Your task to perform on an android device: open app "Move to iOS" Image 0: 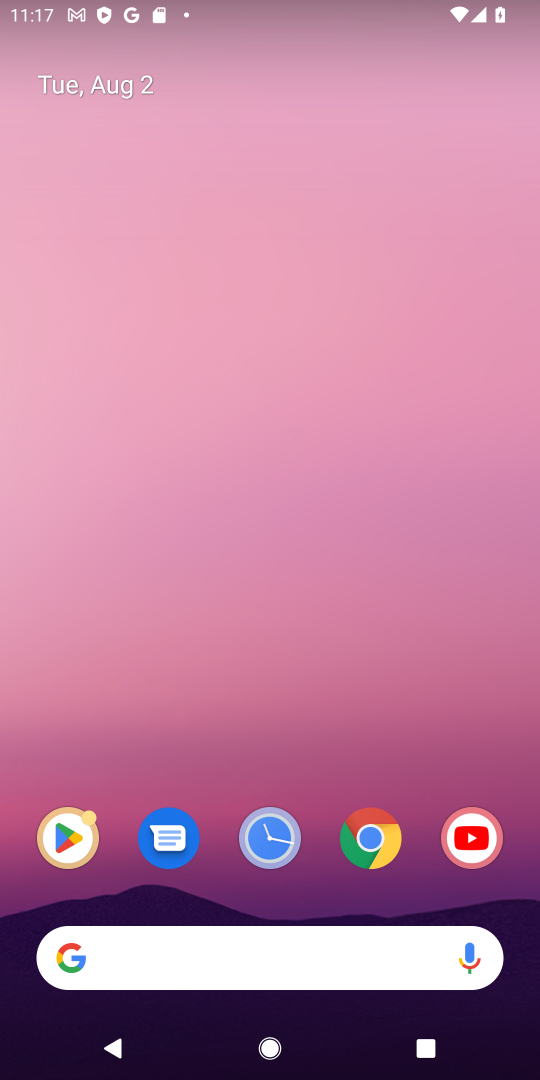
Step 0: drag from (282, 948) to (297, 377)
Your task to perform on an android device: open app "Move to iOS" Image 1: 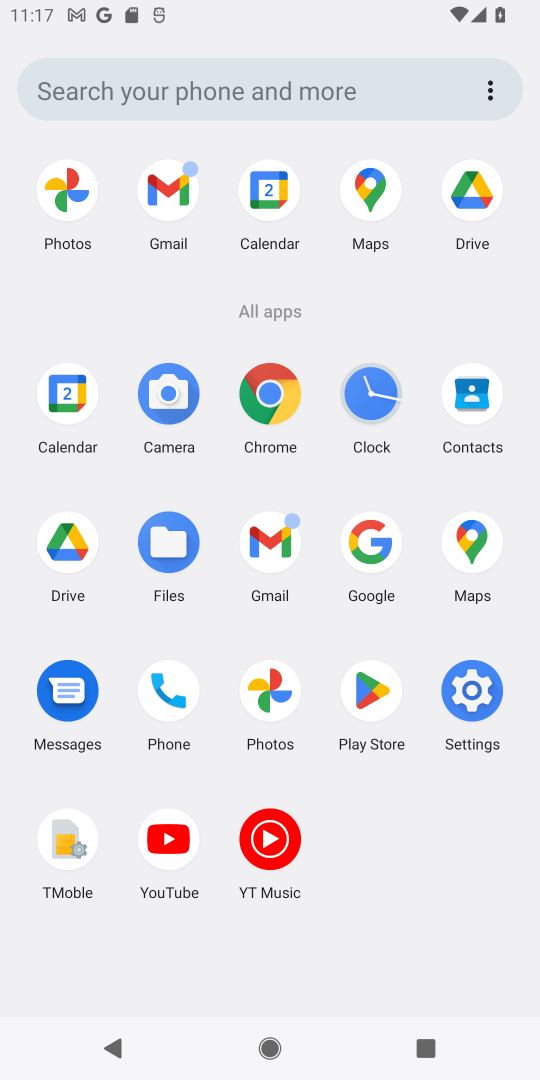
Step 1: click (379, 712)
Your task to perform on an android device: open app "Move to iOS" Image 2: 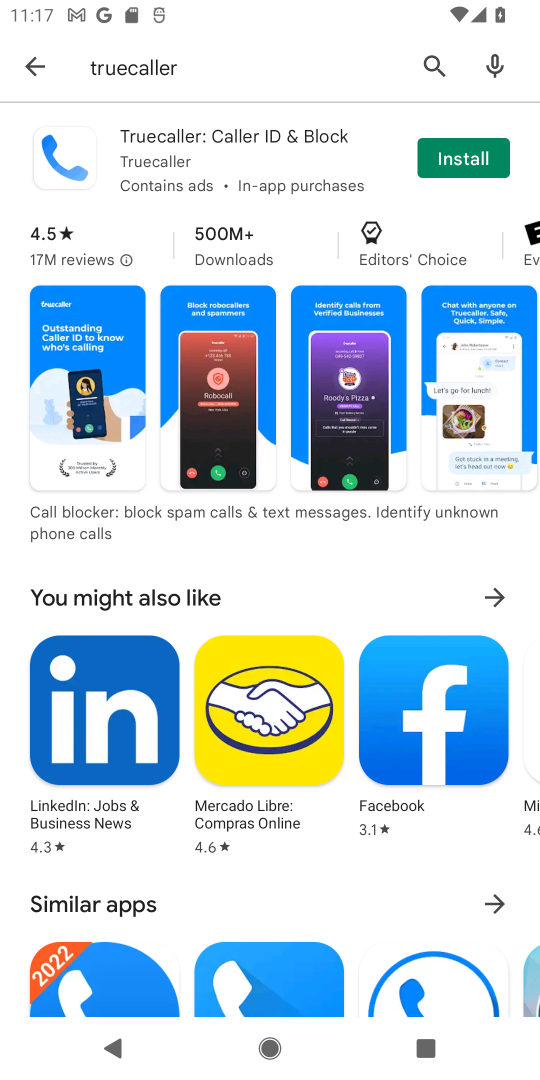
Step 2: click (427, 63)
Your task to perform on an android device: open app "Move to iOS" Image 3: 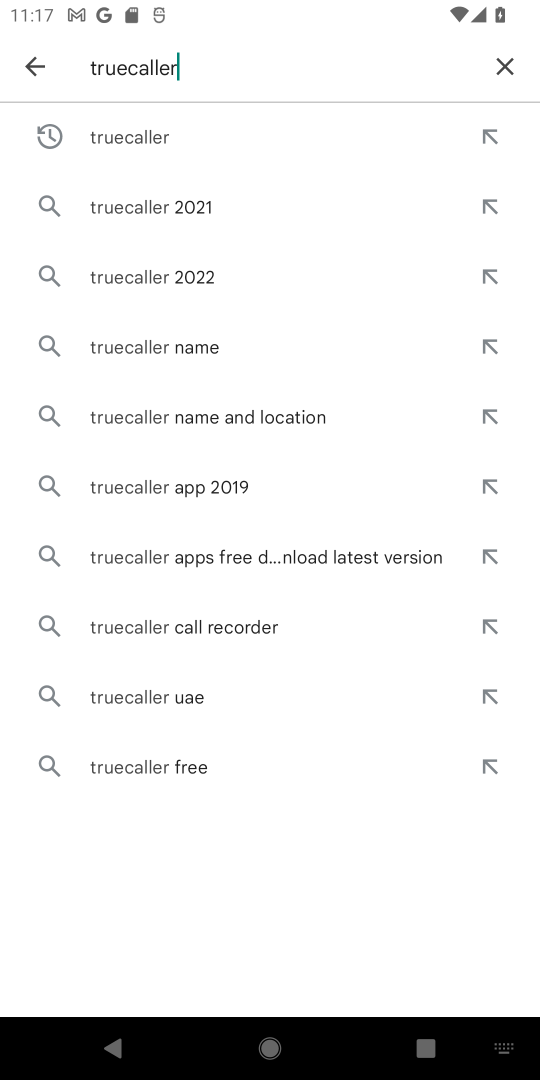
Step 3: click (506, 69)
Your task to perform on an android device: open app "Move to iOS" Image 4: 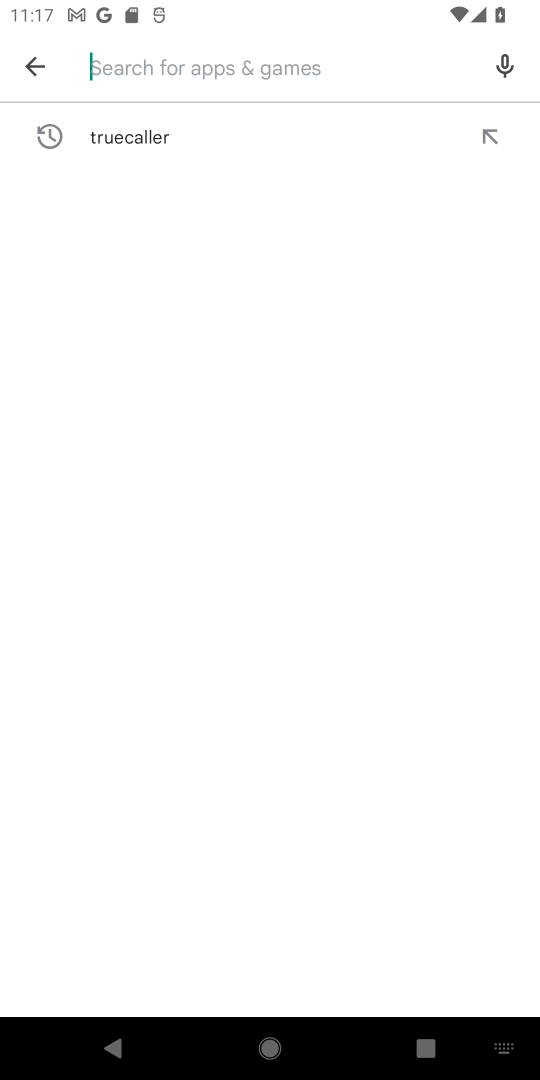
Step 4: type "Move to iOS"
Your task to perform on an android device: open app "Move to iOS" Image 5: 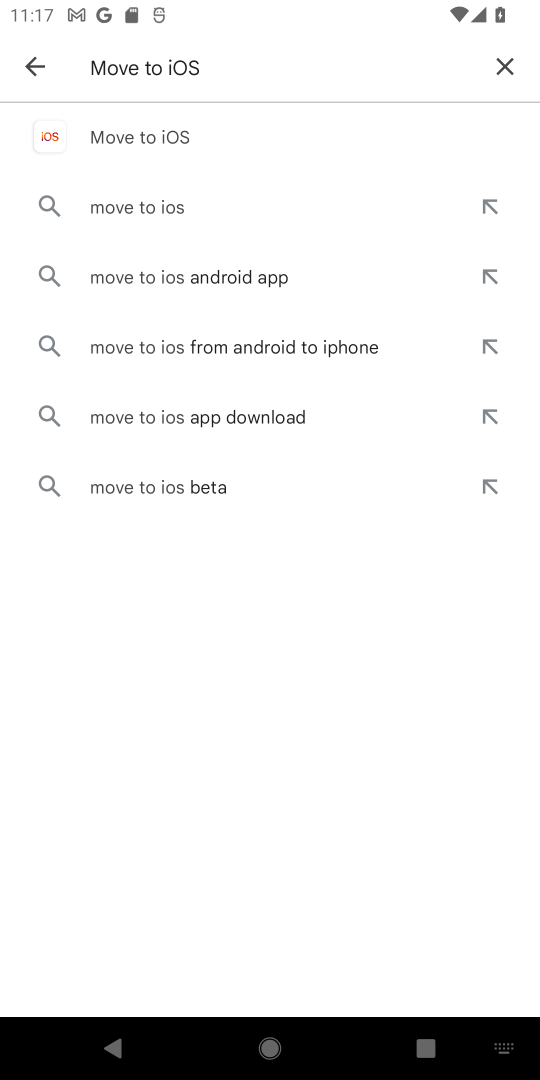
Step 5: click (205, 126)
Your task to perform on an android device: open app "Move to iOS" Image 6: 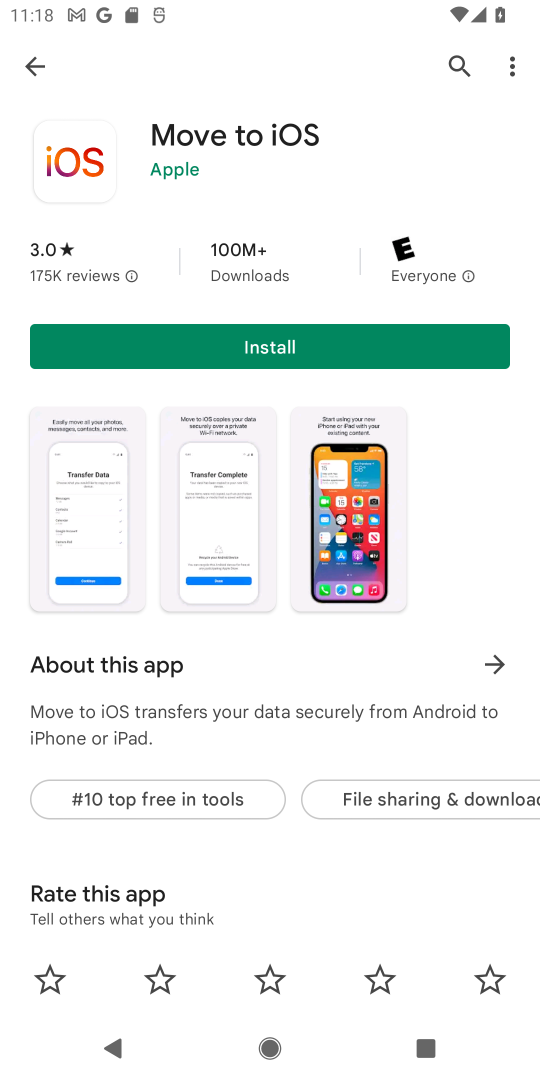
Step 6: task complete